Your task to perform on an android device: What is the recent news? Image 0: 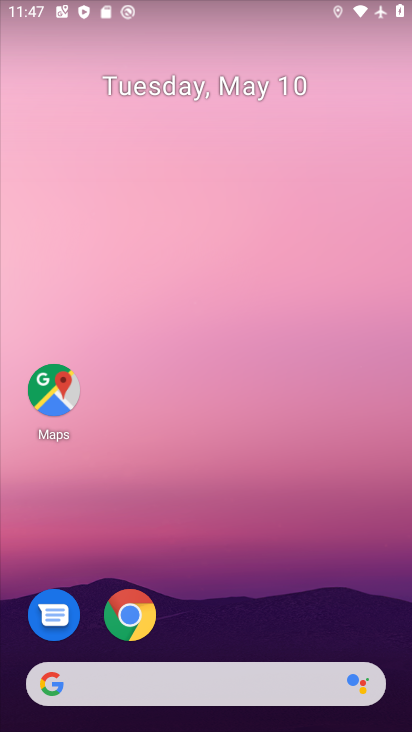
Step 0: drag from (223, 599) to (272, 32)
Your task to perform on an android device: What is the recent news? Image 1: 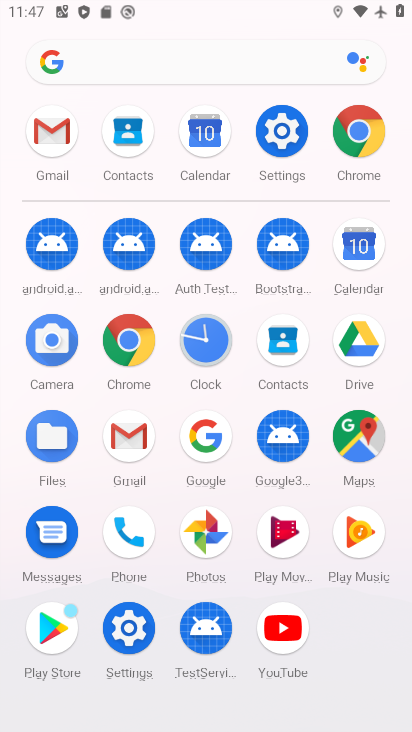
Step 1: drag from (0, 539) to (18, 292)
Your task to perform on an android device: What is the recent news? Image 2: 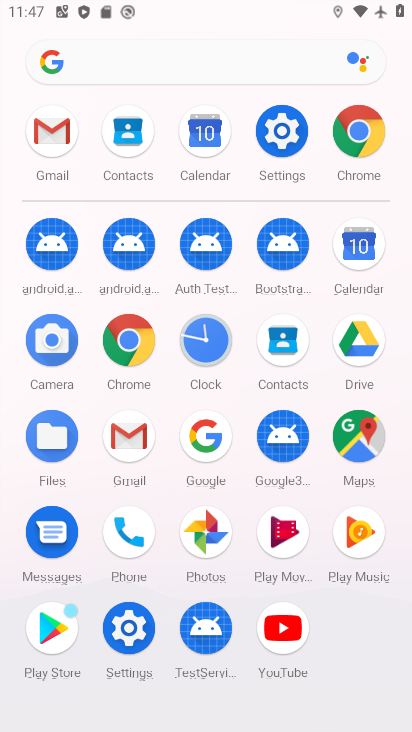
Step 2: click (129, 332)
Your task to perform on an android device: What is the recent news? Image 3: 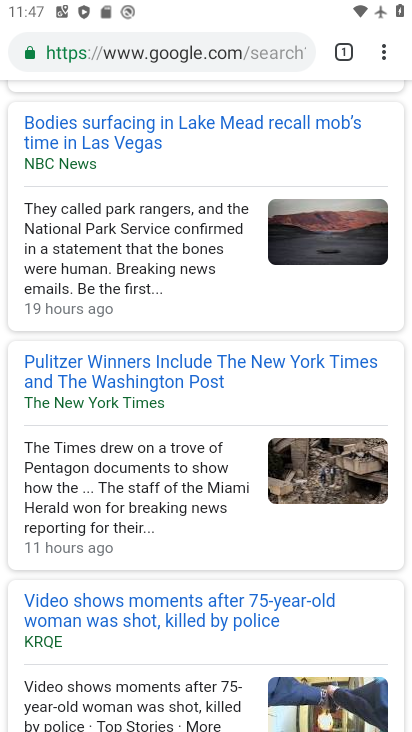
Step 3: task complete